Your task to perform on an android device: check out phone information Image 0: 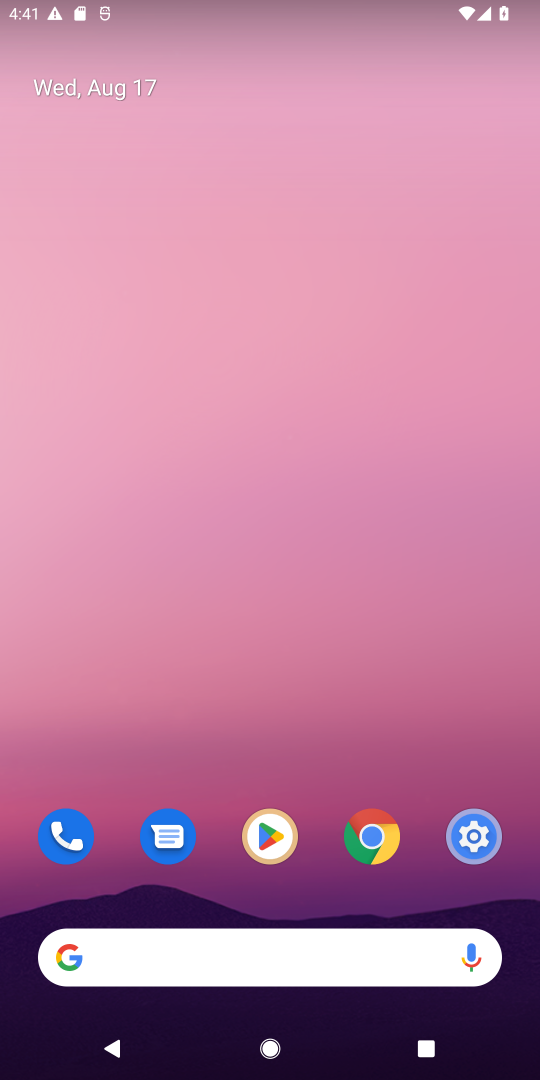
Step 0: click (478, 834)
Your task to perform on an android device: check out phone information Image 1: 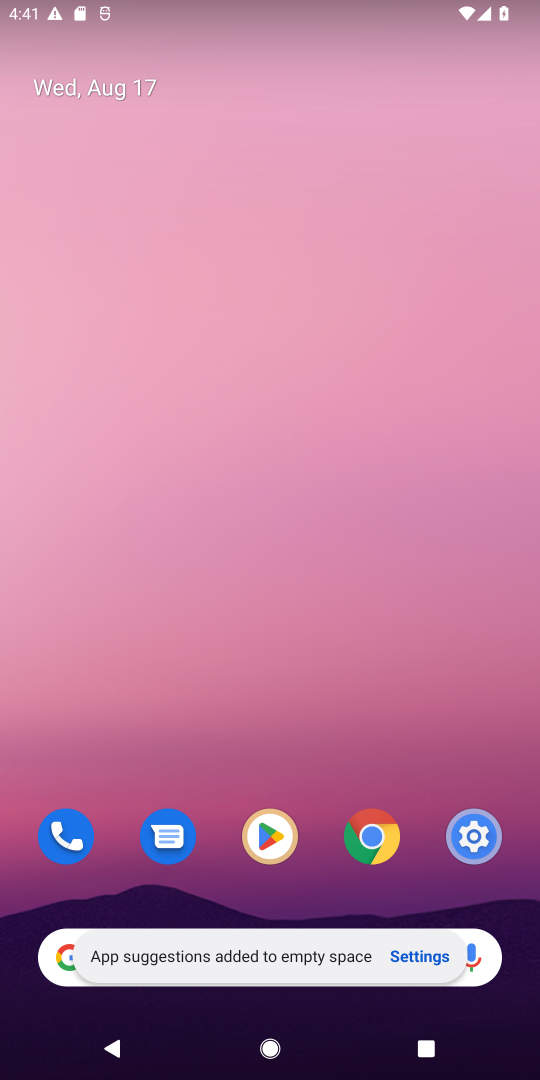
Step 1: click (478, 834)
Your task to perform on an android device: check out phone information Image 2: 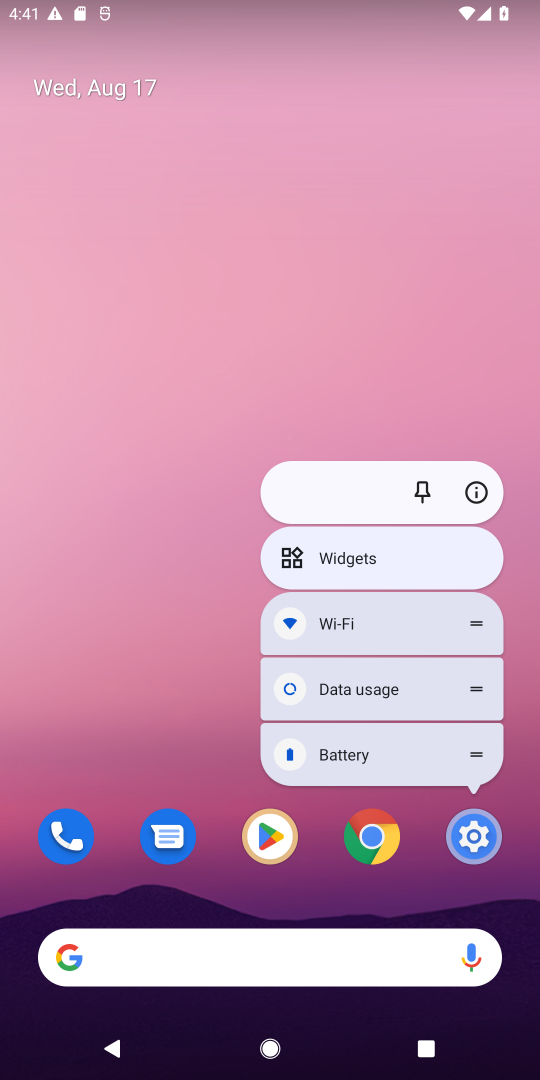
Step 2: click (478, 834)
Your task to perform on an android device: check out phone information Image 3: 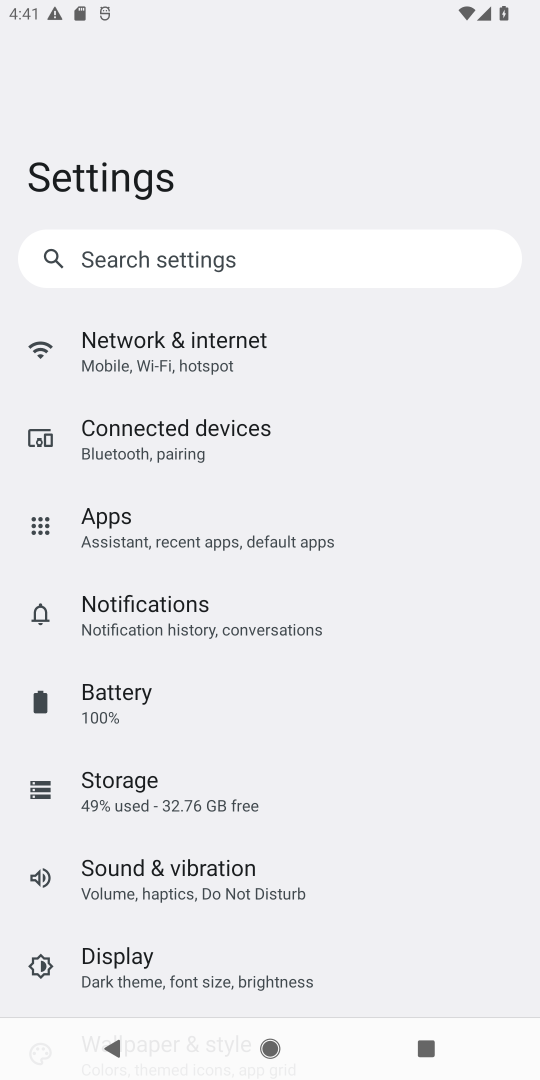
Step 3: drag from (380, 895) to (501, 242)
Your task to perform on an android device: check out phone information Image 4: 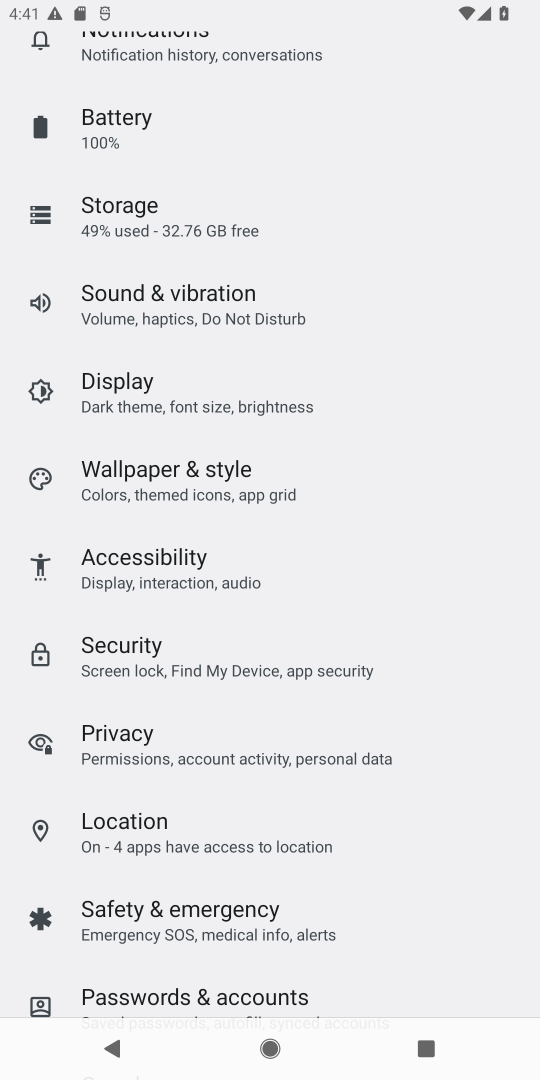
Step 4: drag from (380, 857) to (444, 290)
Your task to perform on an android device: check out phone information Image 5: 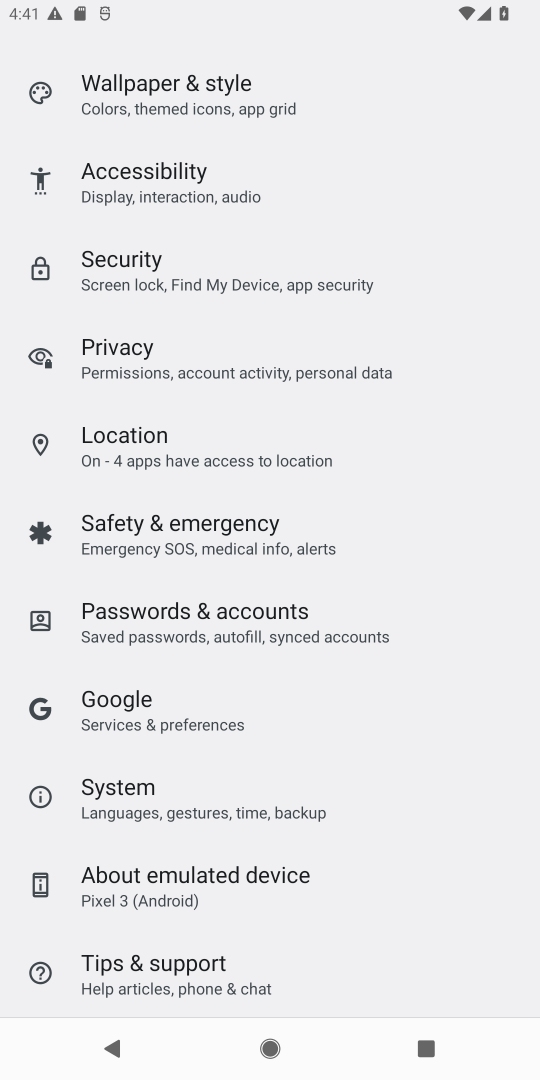
Step 5: click (237, 893)
Your task to perform on an android device: check out phone information Image 6: 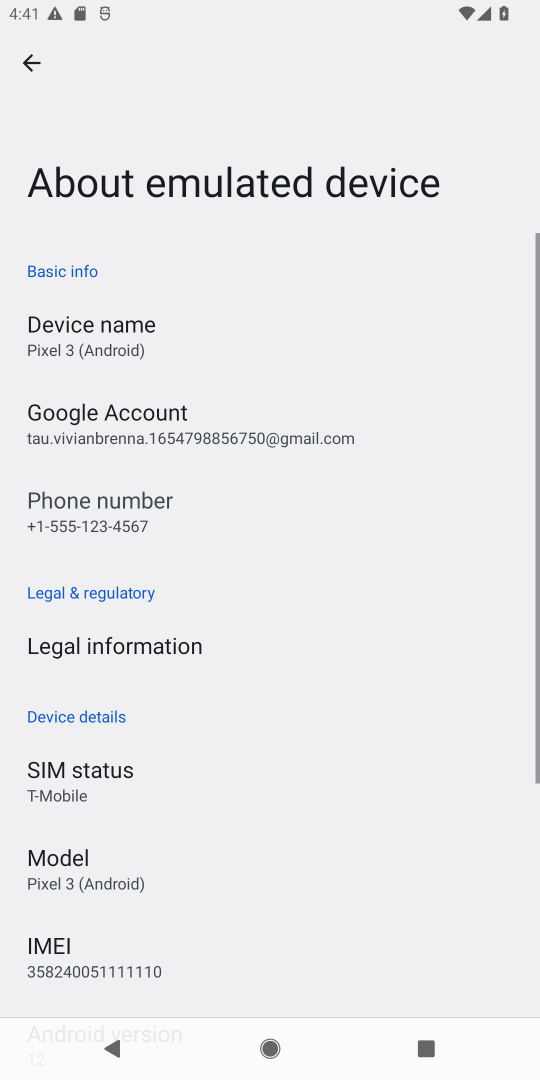
Step 6: task complete